Your task to perform on an android device: Turn off the flashlight Image 0: 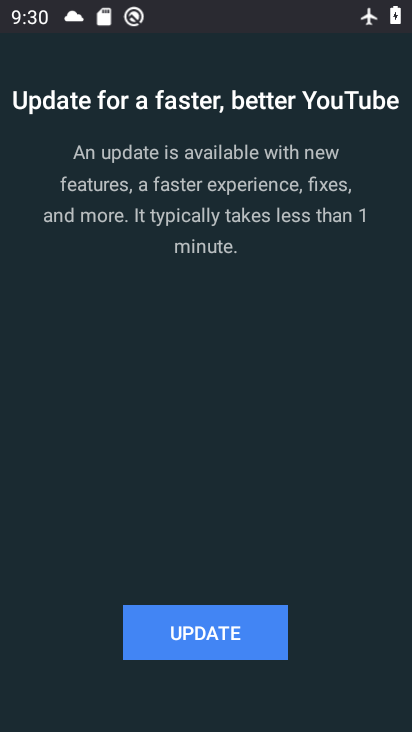
Step 0: press home button
Your task to perform on an android device: Turn off the flashlight Image 1: 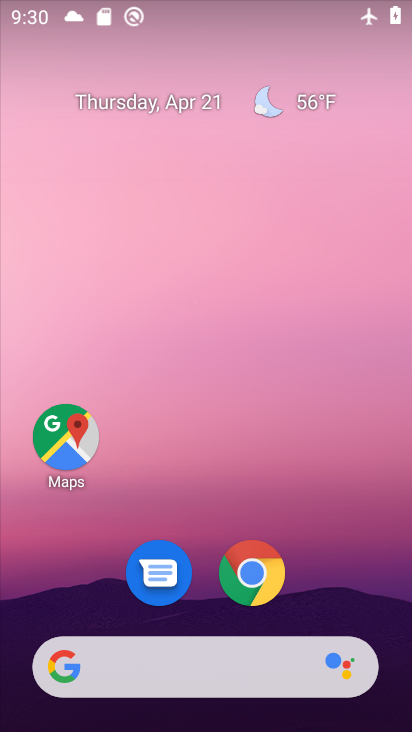
Step 1: drag from (334, 582) to (322, 184)
Your task to perform on an android device: Turn off the flashlight Image 2: 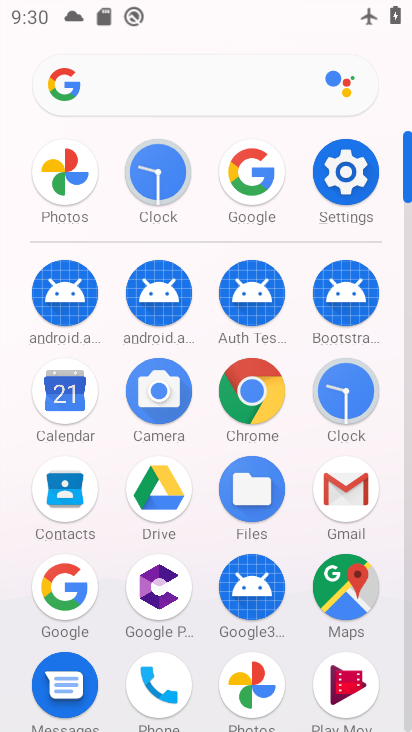
Step 2: click (346, 175)
Your task to perform on an android device: Turn off the flashlight Image 3: 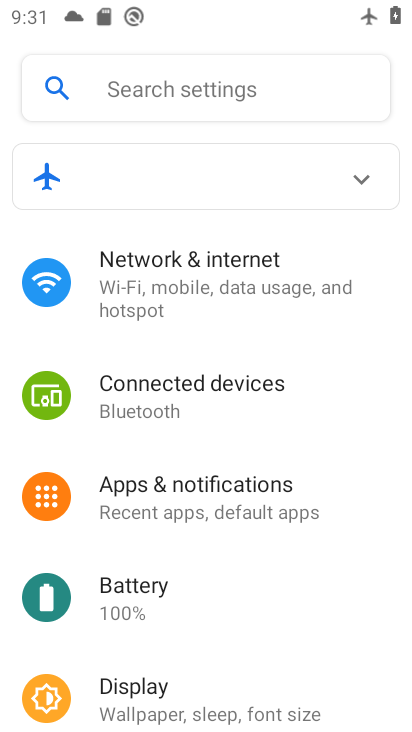
Step 3: drag from (222, 613) to (277, 471)
Your task to perform on an android device: Turn off the flashlight Image 4: 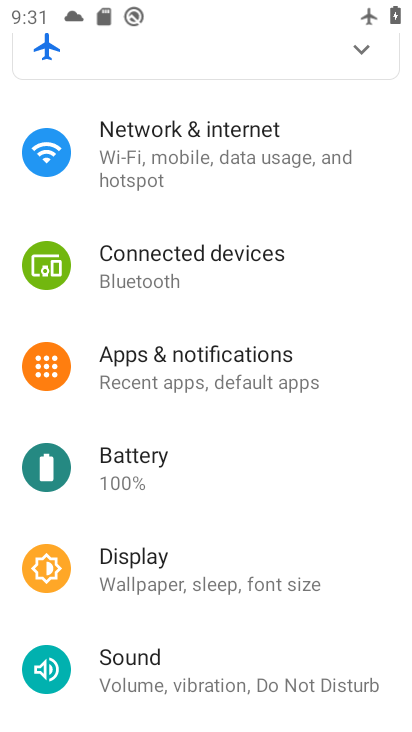
Step 4: click (221, 588)
Your task to perform on an android device: Turn off the flashlight Image 5: 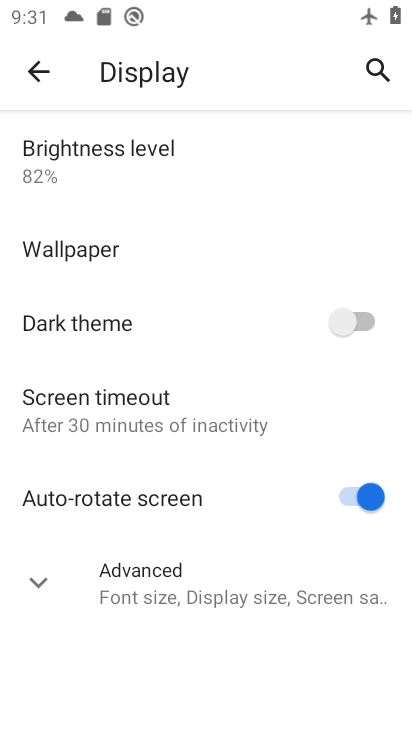
Step 5: drag from (222, 285) to (197, 391)
Your task to perform on an android device: Turn off the flashlight Image 6: 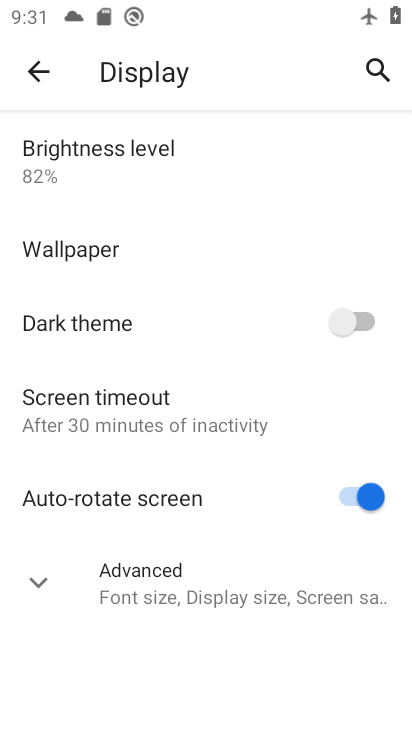
Step 6: click (40, 578)
Your task to perform on an android device: Turn off the flashlight Image 7: 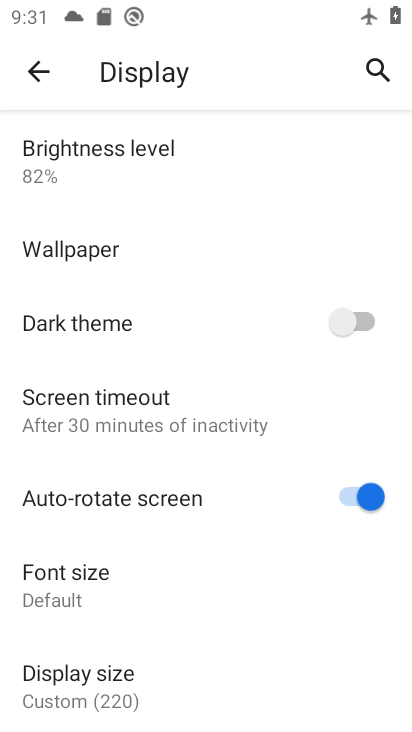
Step 7: drag from (162, 620) to (202, 431)
Your task to perform on an android device: Turn off the flashlight Image 8: 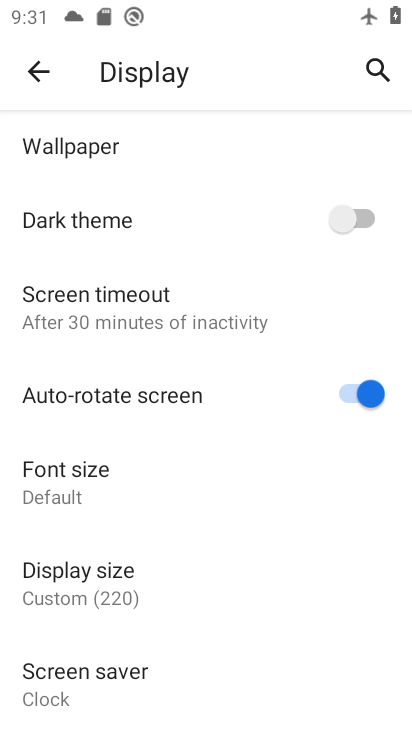
Step 8: drag from (231, 588) to (260, 395)
Your task to perform on an android device: Turn off the flashlight Image 9: 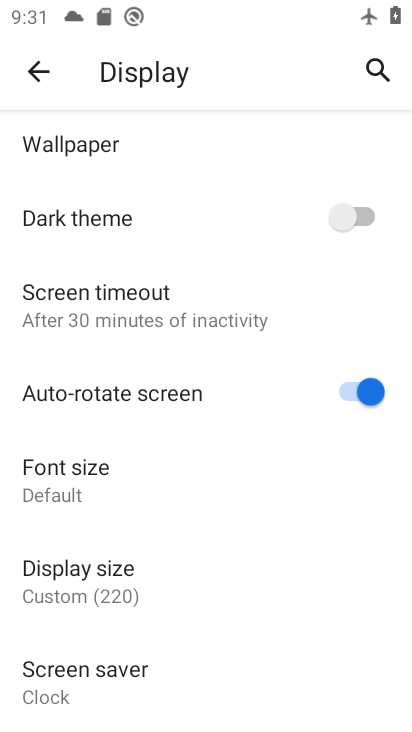
Step 9: click (205, 293)
Your task to perform on an android device: Turn off the flashlight Image 10: 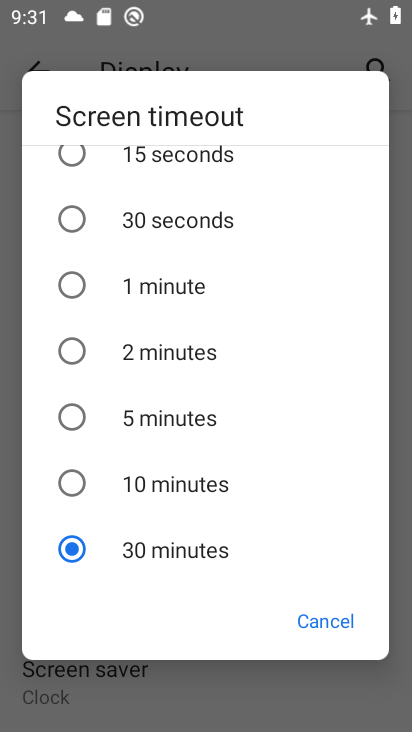
Step 10: click (310, 631)
Your task to perform on an android device: Turn off the flashlight Image 11: 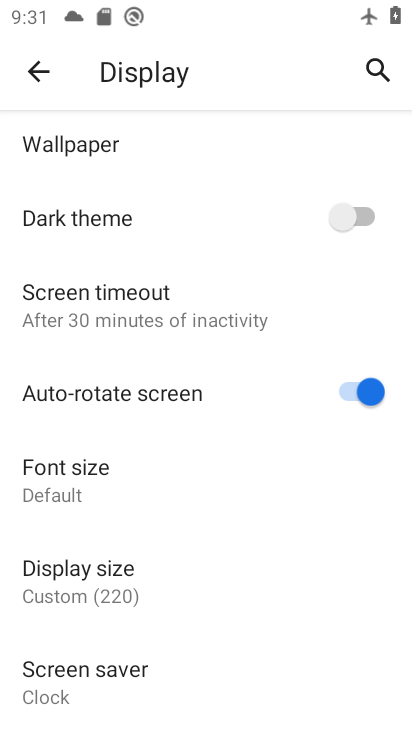
Step 11: press back button
Your task to perform on an android device: Turn off the flashlight Image 12: 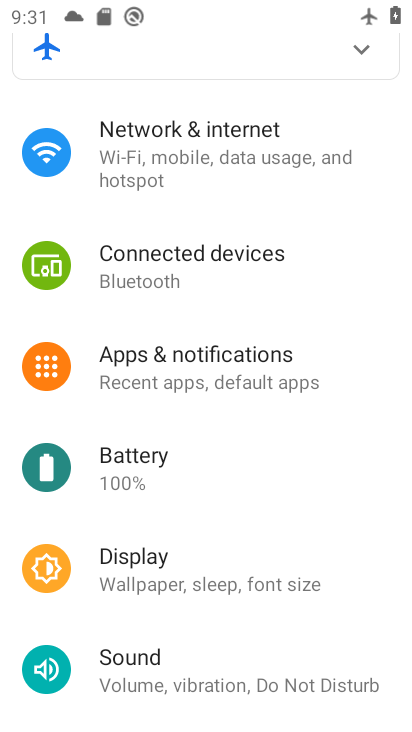
Step 12: drag from (205, 534) to (264, 426)
Your task to perform on an android device: Turn off the flashlight Image 13: 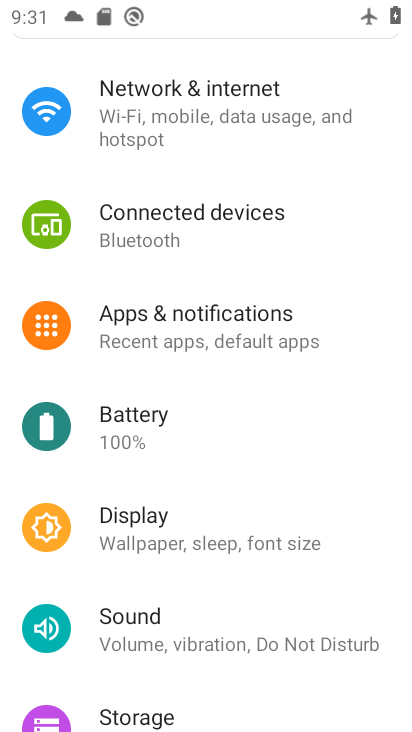
Step 13: drag from (233, 585) to (300, 476)
Your task to perform on an android device: Turn off the flashlight Image 14: 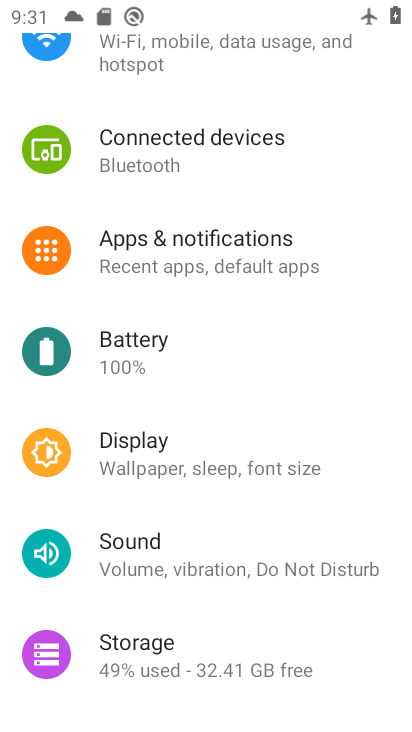
Step 14: drag from (230, 597) to (329, 462)
Your task to perform on an android device: Turn off the flashlight Image 15: 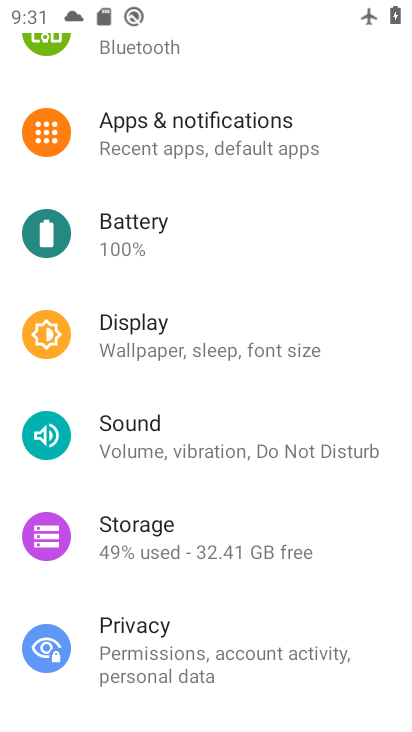
Step 15: drag from (251, 520) to (332, 392)
Your task to perform on an android device: Turn off the flashlight Image 16: 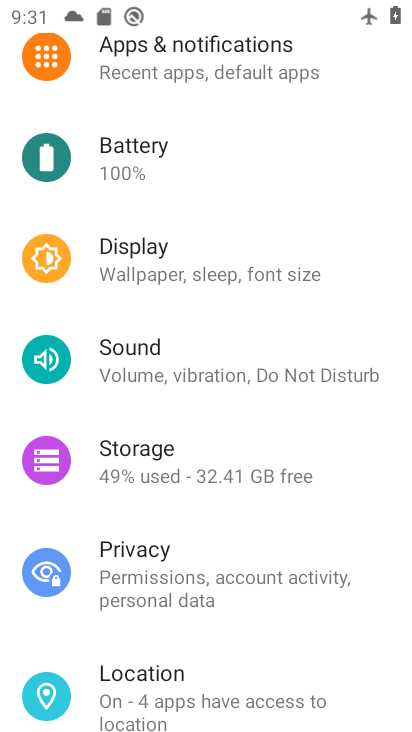
Step 16: drag from (187, 536) to (292, 432)
Your task to perform on an android device: Turn off the flashlight Image 17: 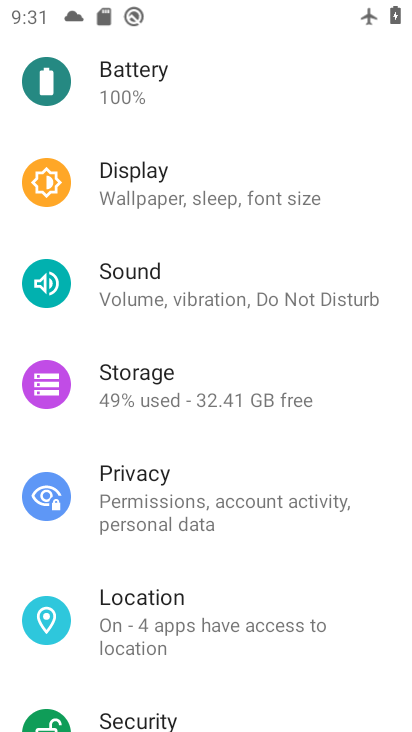
Step 17: drag from (194, 562) to (282, 443)
Your task to perform on an android device: Turn off the flashlight Image 18: 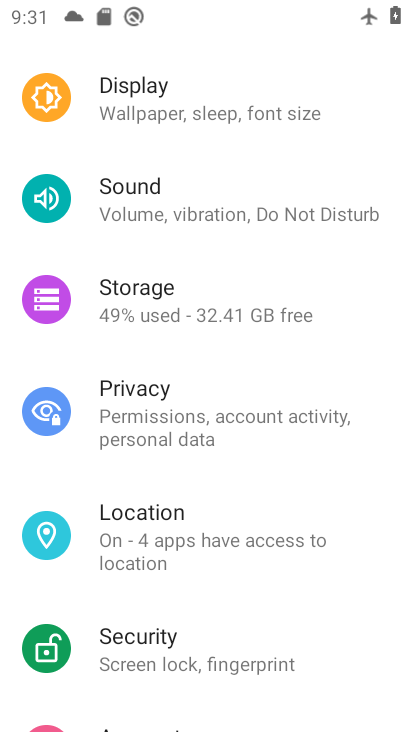
Step 18: drag from (198, 592) to (288, 482)
Your task to perform on an android device: Turn off the flashlight Image 19: 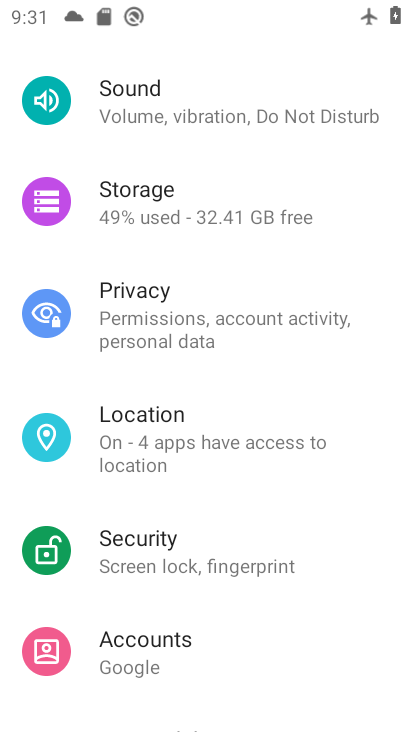
Step 19: drag from (213, 529) to (296, 432)
Your task to perform on an android device: Turn off the flashlight Image 20: 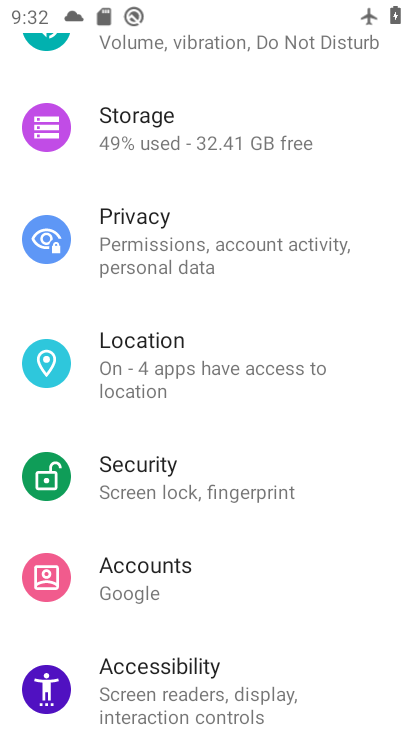
Step 20: drag from (183, 617) to (295, 497)
Your task to perform on an android device: Turn off the flashlight Image 21: 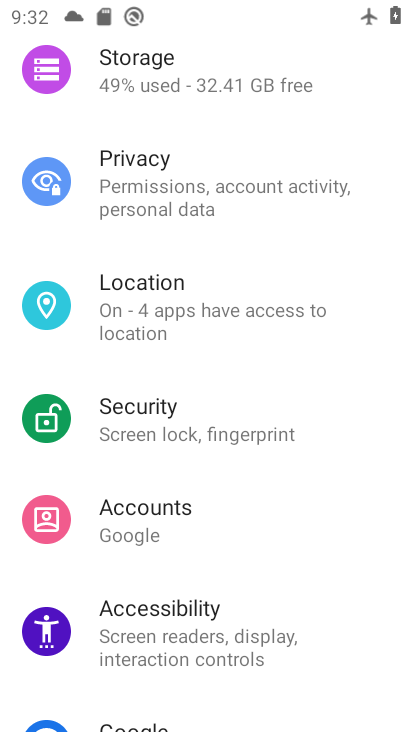
Step 21: drag from (198, 559) to (278, 480)
Your task to perform on an android device: Turn off the flashlight Image 22: 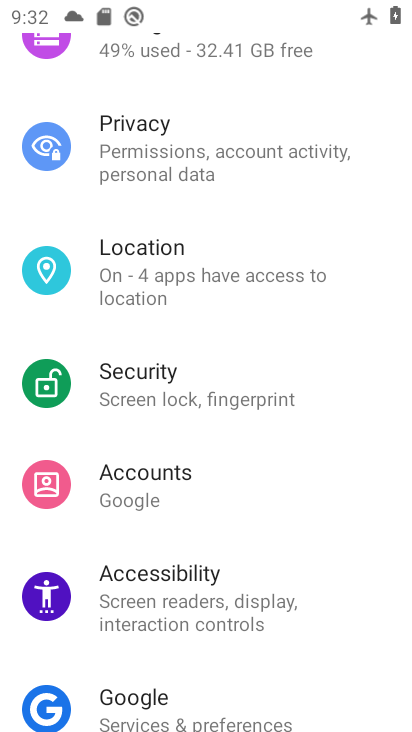
Step 22: click (190, 571)
Your task to perform on an android device: Turn off the flashlight Image 23: 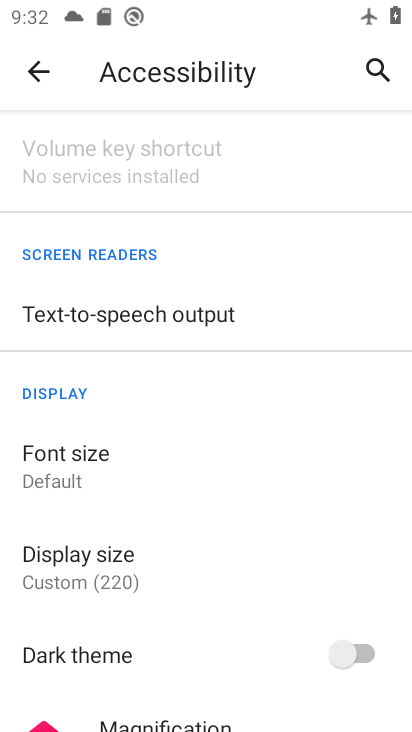
Step 23: task complete